Your task to perform on an android device: Go to settings Image 0: 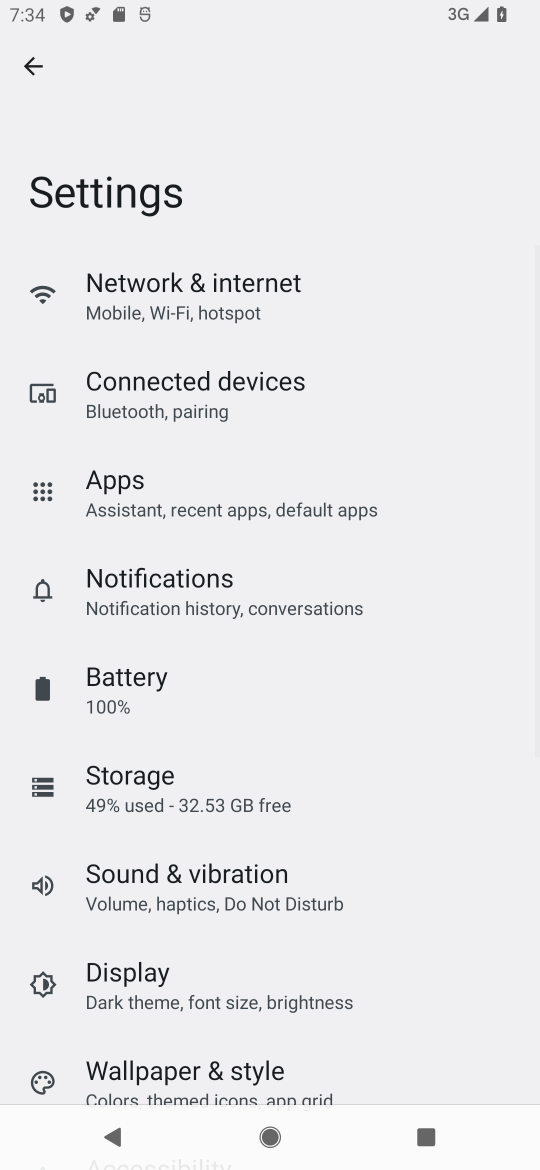
Step 0: click (72, 332)
Your task to perform on an android device: Go to settings Image 1: 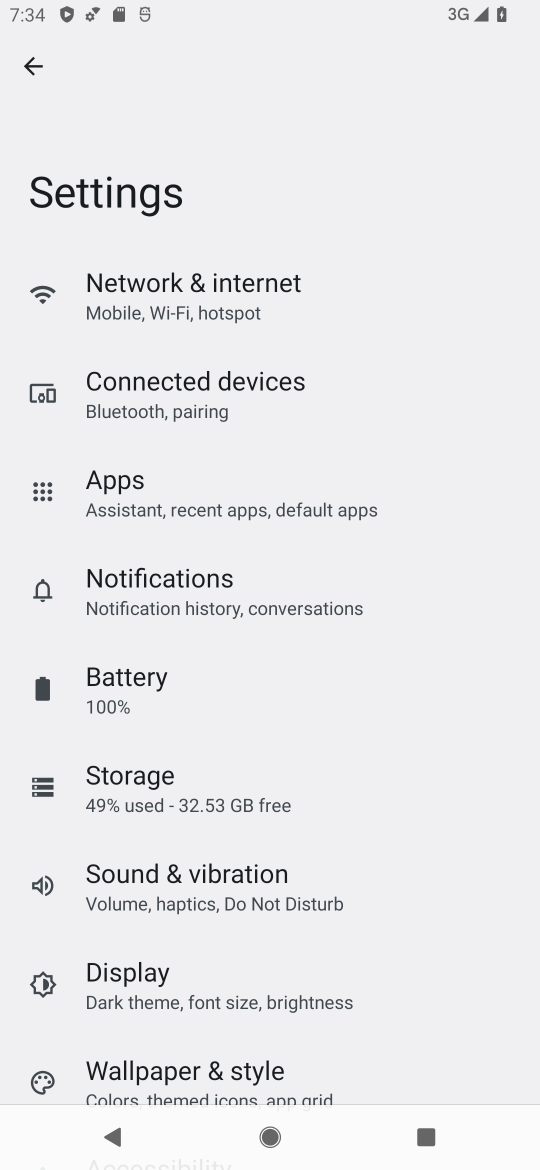
Step 1: task complete